Your task to perform on an android device: Open location settings Image 0: 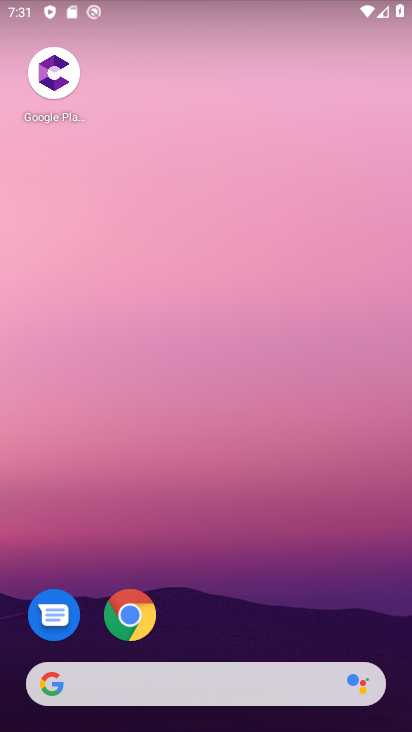
Step 0: drag from (236, 714) to (276, 202)
Your task to perform on an android device: Open location settings Image 1: 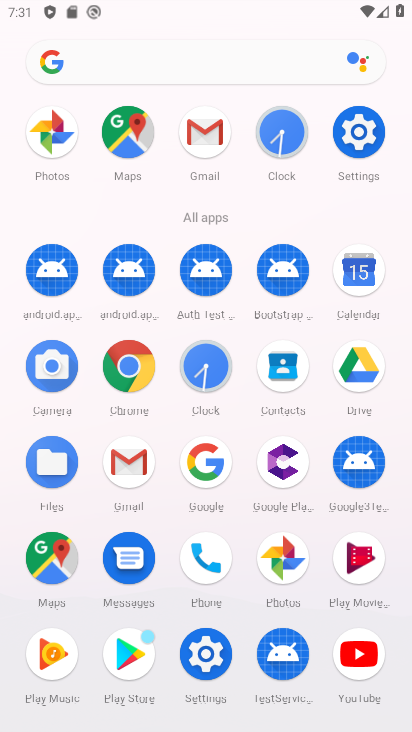
Step 1: click (356, 144)
Your task to perform on an android device: Open location settings Image 2: 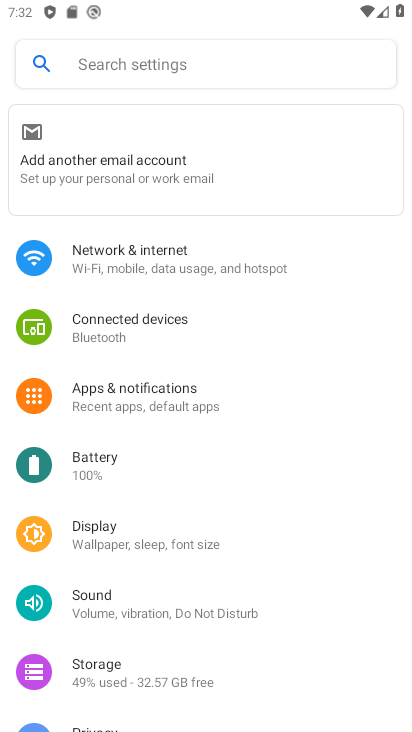
Step 2: click (160, 52)
Your task to perform on an android device: Open location settings Image 3: 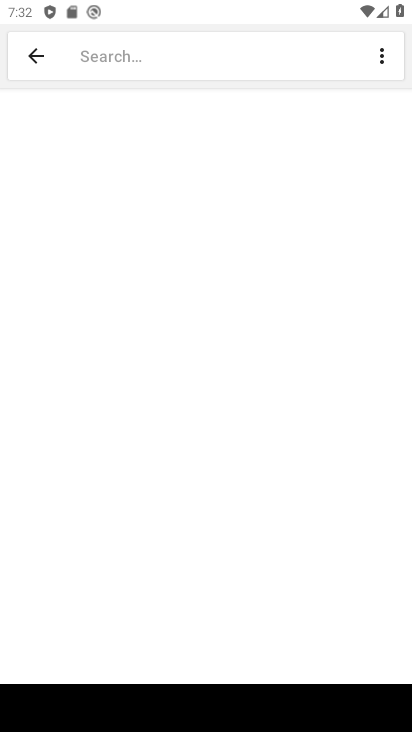
Step 3: drag from (390, 712) to (346, 492)
Your task to perform on an android device: Open location settings Image 4: 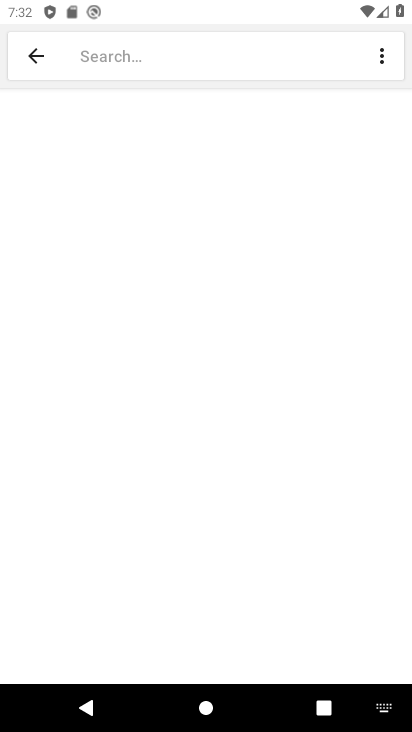
Step 4: click (387, 694)
Your task to perform on an android device: Open location settings Image 5: 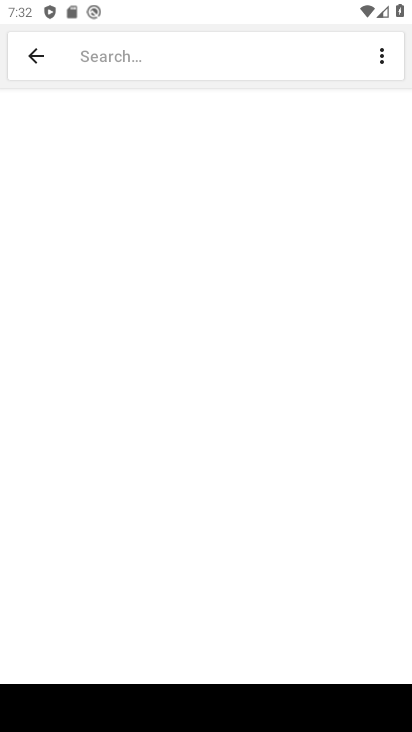
Step 5: drag from (394, 698) to (388, 556)
Your task to perform on an android device: Open location settings Image 6: 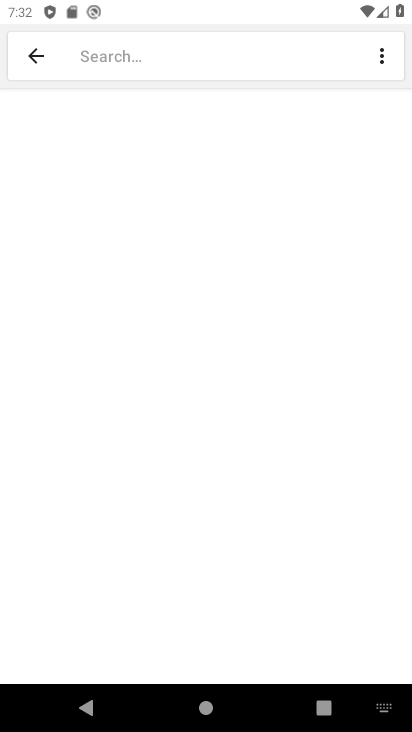
Step 6: click (380, 714)
Your task to perform on an android device: Open location settings Image 7: 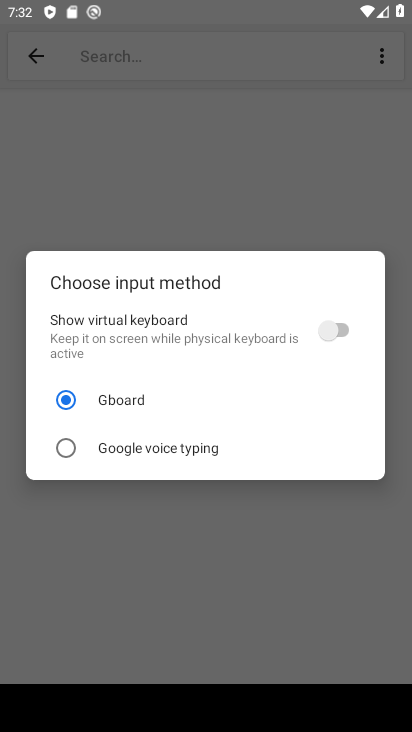
Step 7: click (339, 321)
Your task to perform on an android device: Open location settings Image 8: 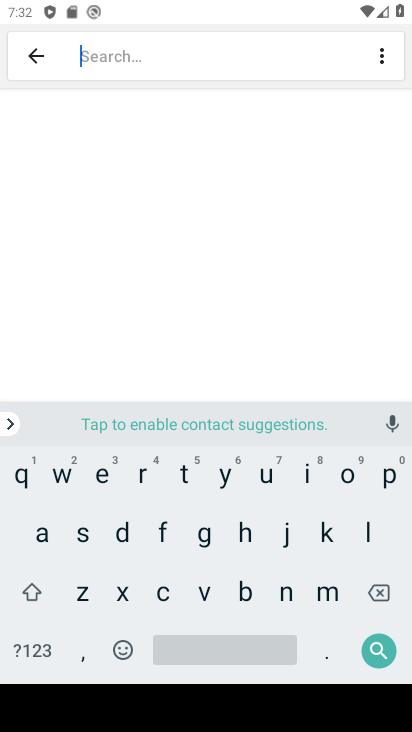
Step 8: click (361, 529)
Your task to perform on an android device: Open location settings Image 9: 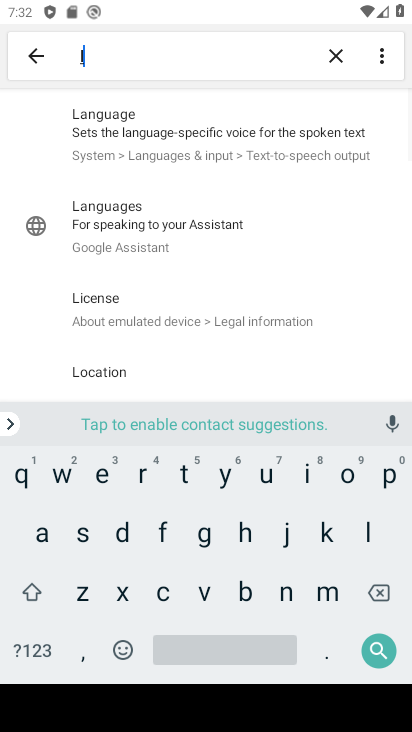
Step 9: click (353, 481)
Your task to perform on an android device: Open location settings Image 10: 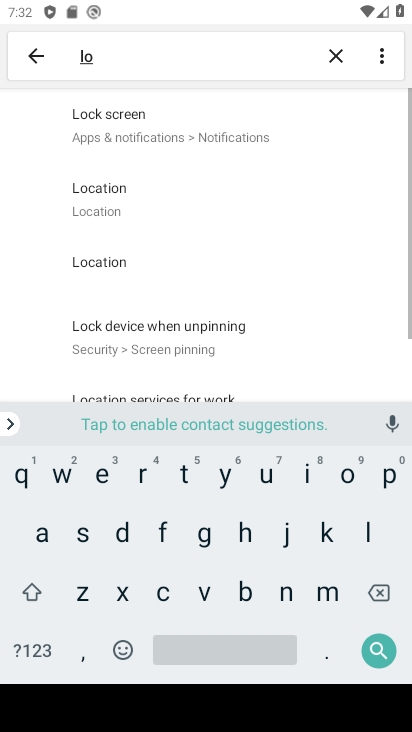
Step 10: click (140, 212)
Your task to perform on an android device: Open location settings Image 11: 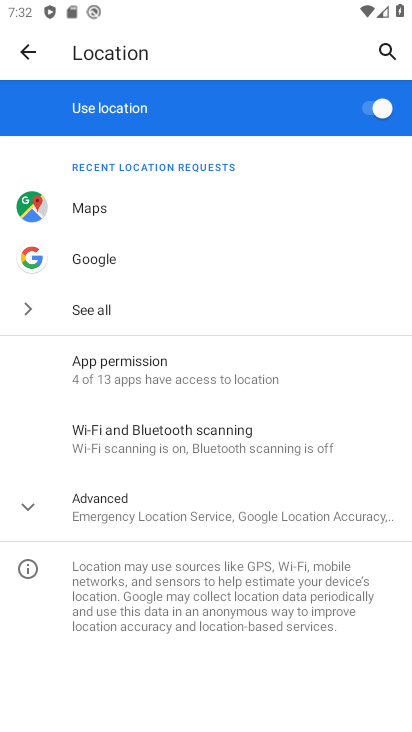
Step 11: task complete